Your task to perform on an android device: check data usage Image 0: 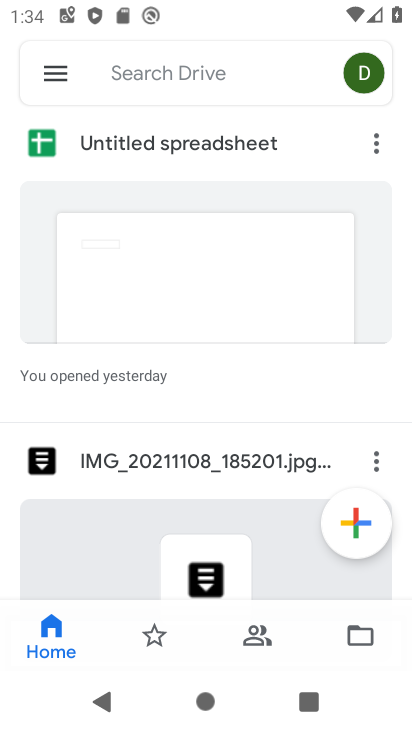
Step 0: press home button
Your task to perform on an android device: check data usage Image 1: 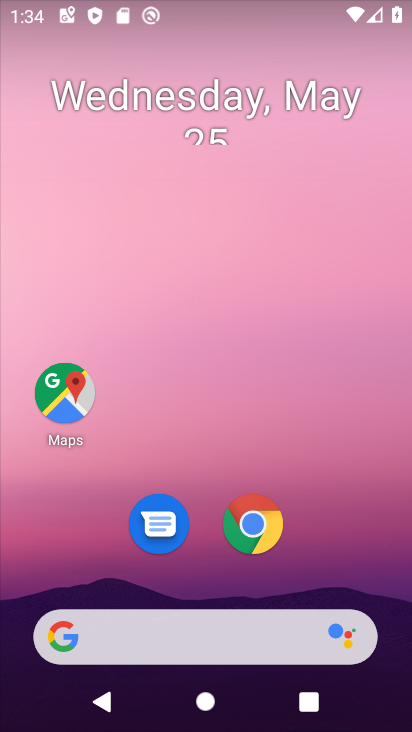
Step 1: drag from (227, 465) to (260, 16)
Your task to perform on an android device: check data usage Image 2: 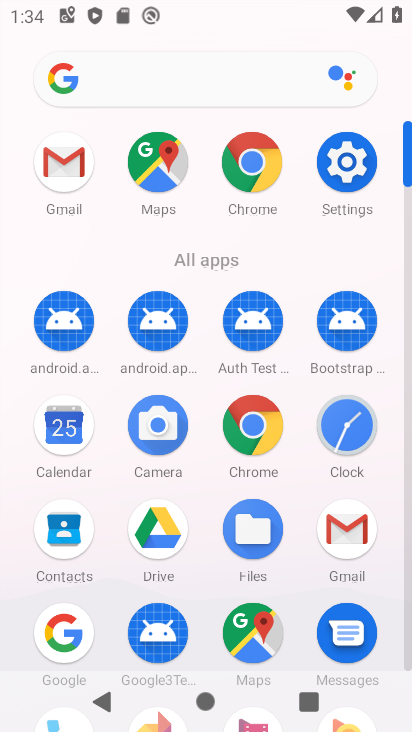
Step 2: click (343, 167)
Your task to perform on an android device: check data usage Image 3: 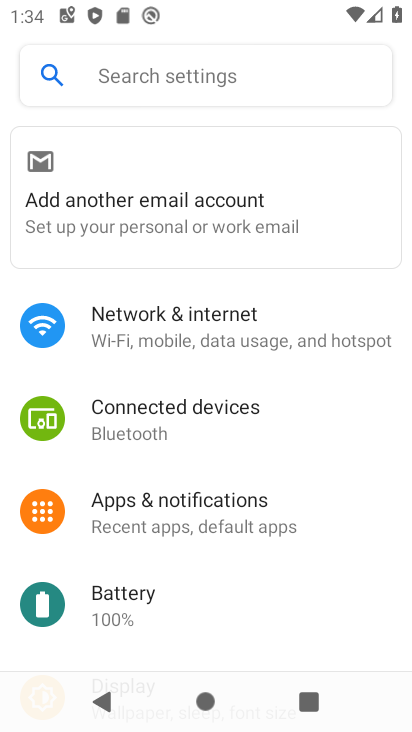
Step 3: click (248, 318)
Your task to perform on an android device: check data usage Image 4: 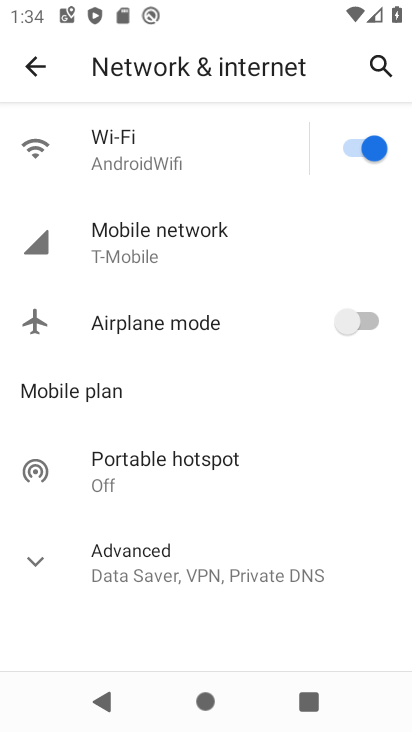
Step 4: click (238, 227)
Your task to perform on an android device: check data usage Image 5: 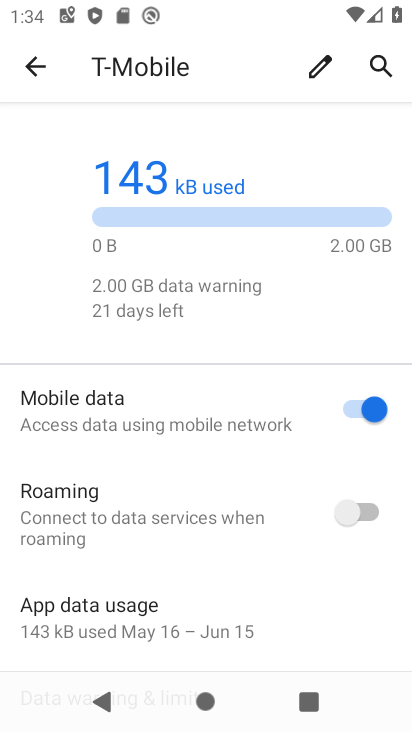
Step 5: task complete